Your task to perform on an android device: all mails in gmail Image 0: 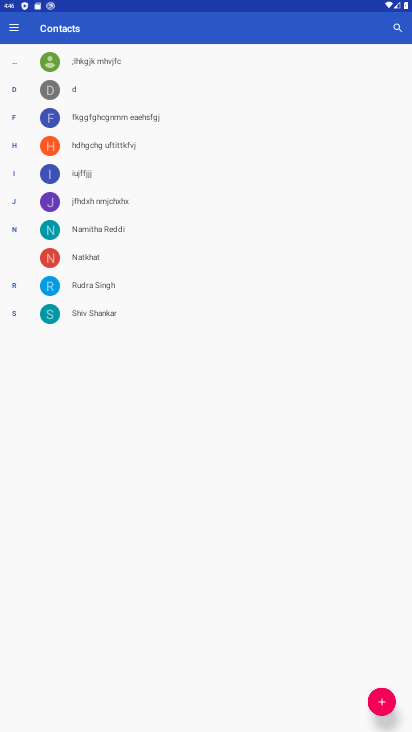
Step 0: press home button
Your task to perform on an android device: all mails in gmail Image 1: 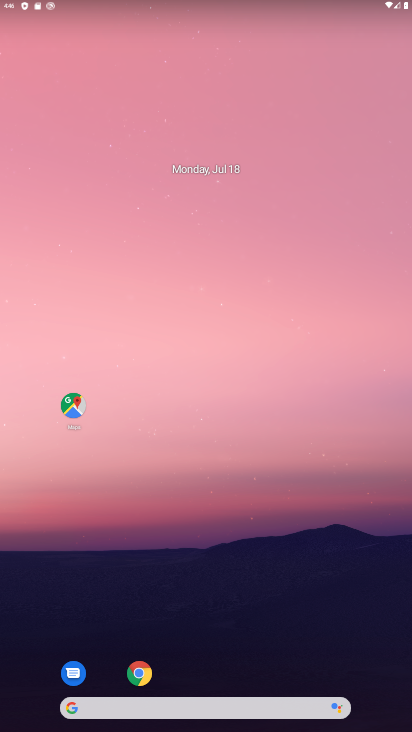
Step 1: drag from (333, 458) to (345, 200)
Your task to perform on an android device: all mails in gmail Image 2: 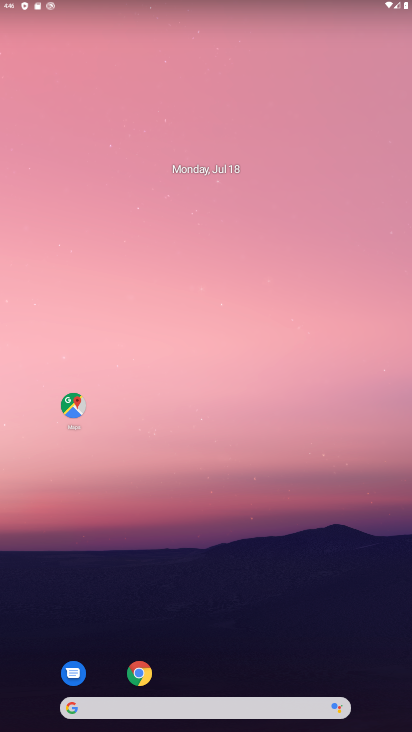
Step 2: drag from (244, 526) to (164, 168)
Your task to perform on an android device: all mails in gmail Image 3: 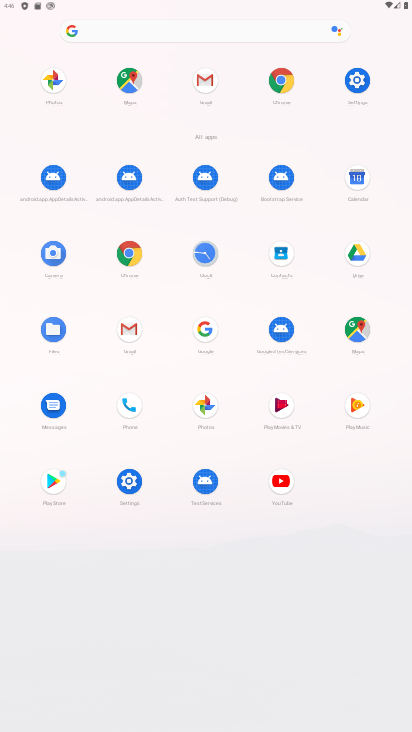
Step 3: click (205, 83)
Your task to perform on an android device: all mails in gmail Image 4: 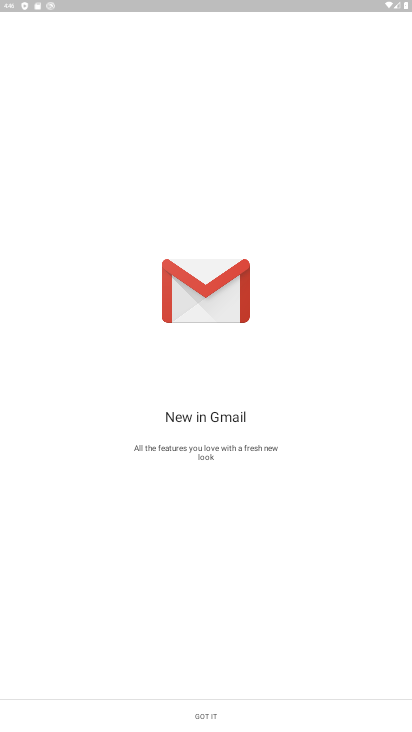
Step 4: click (197, 706)
Your task to perform on an android device: all mails in gmail Image 5: 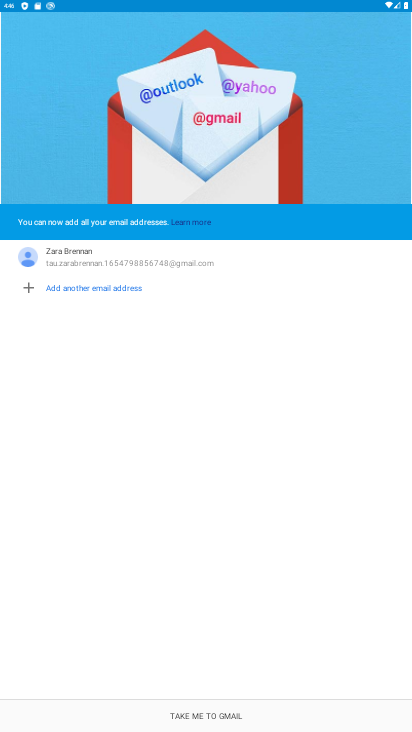
Step 5: click (217, 712)
Your task to perform on an android device: all mails in gmail Image 6: 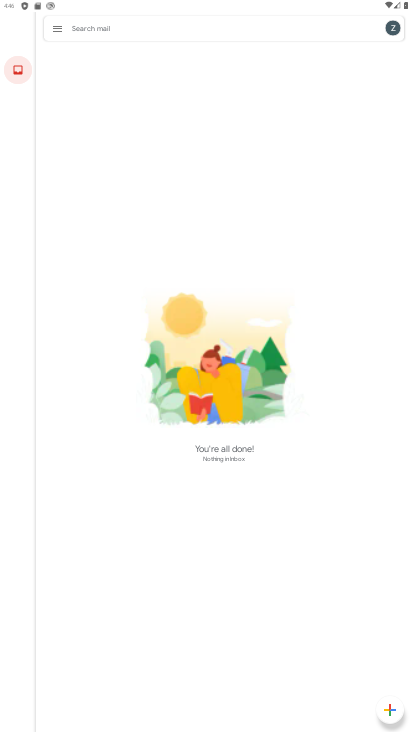
Step 6: click (56, 35)
Your task to perform on an android device: all mails in gmail Image 7: 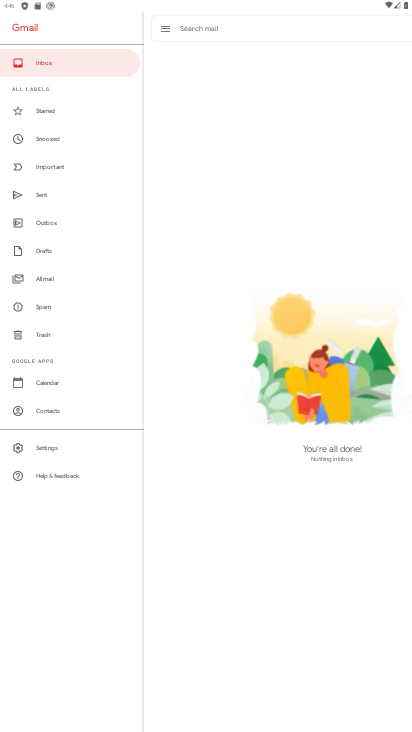
Step 7: click (35, 273)
Your task to perform on an android device: all mails in gmail Image 8: 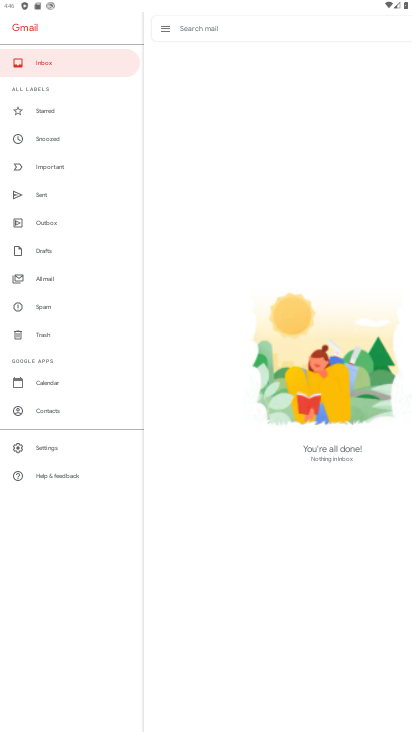
Step 8: click (32, 277)
Your task to perform on an android device: all mails in gmail Image 9: 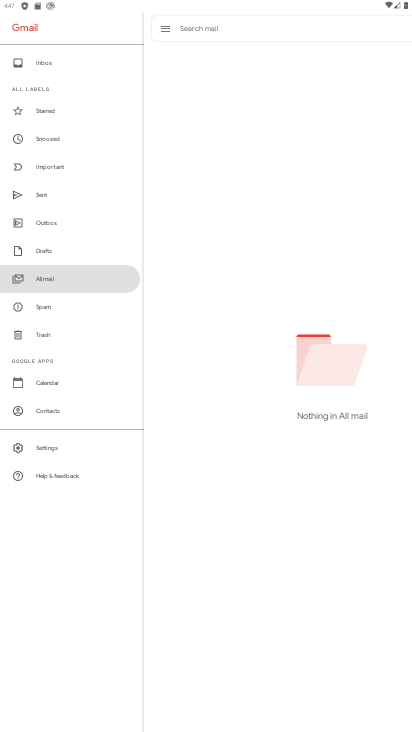
Step 9: task complete